Your task to perform on an android device: When is my next appointment? Image 0: 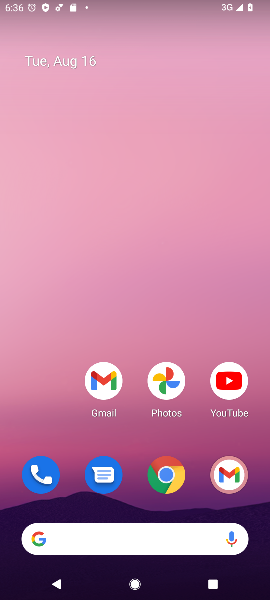
Step 0: drag from (206, 434) to (147, 108)
Your task to perform on an android device: When is my next appointment? Image 1: 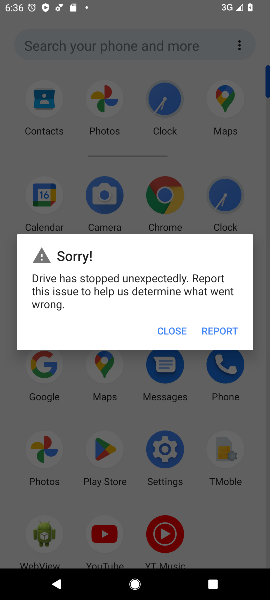
Step 1: click (176, 336)
Your task to perform on an android device: When is my next appointment? Image 2: 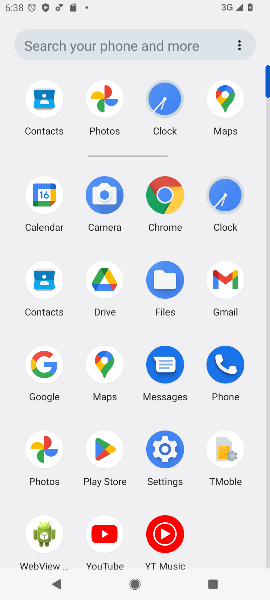
Step 2: click (41, 208)
Your task to perform on an android device: When is my next appointment? Image 3: 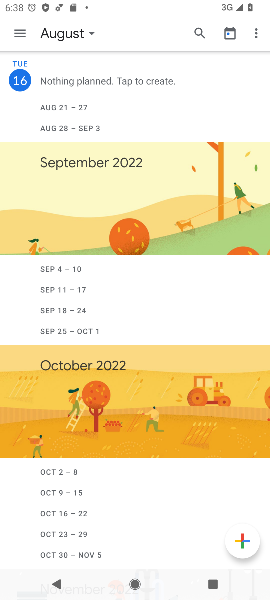
Step 3: task complete